Your task to perform on an android device: How do I get to the nearest JCPenney? Image 0: 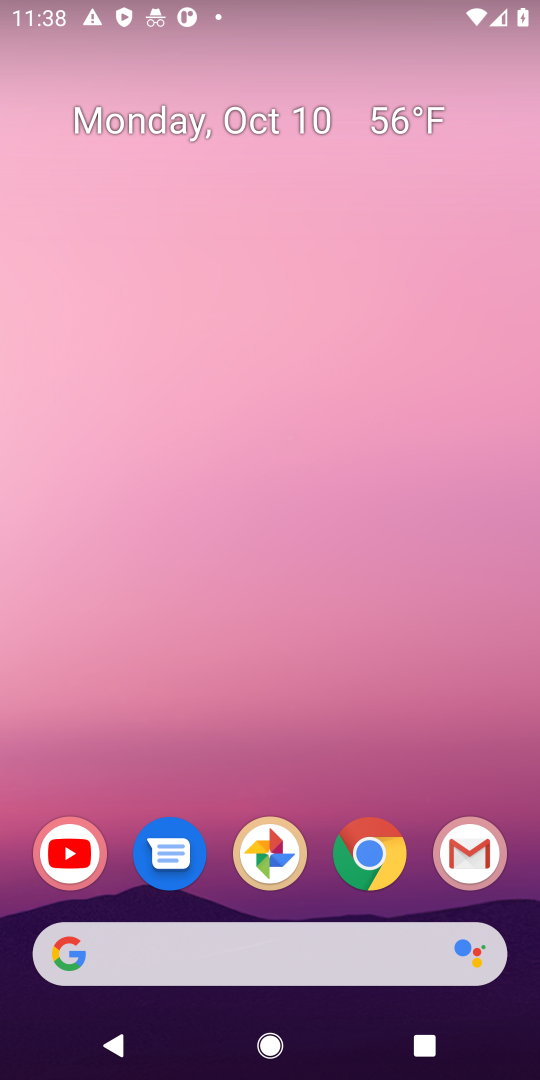
Step 0: drag from (319, 815) to (386, 1)
Your task to perform on an android device: How do I get to the nearest JCPenney? Image 1: 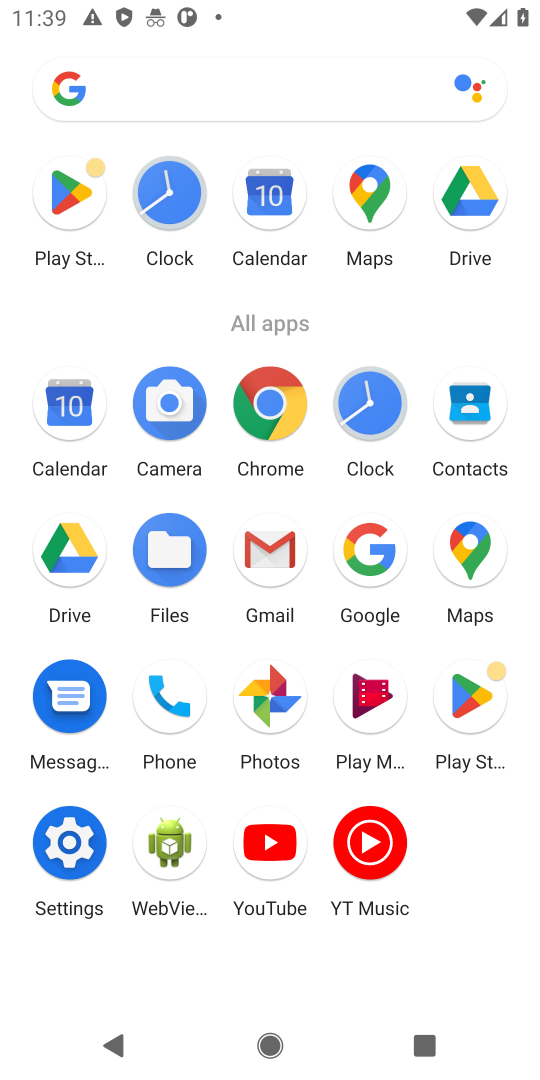
Step 1: click (270, 402)
Your task to perform on an android device: How do I get to the nearest JCPenney? Image 2: 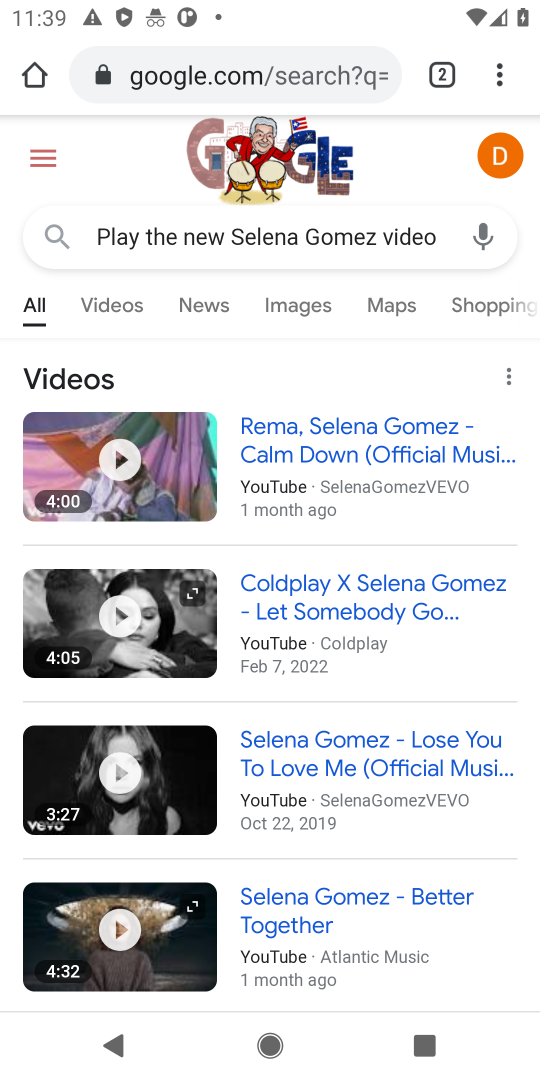
Step 2: click (232, 67)
Your task to perform on an android device: How do I get to the nearest JCPenney? Image 3: 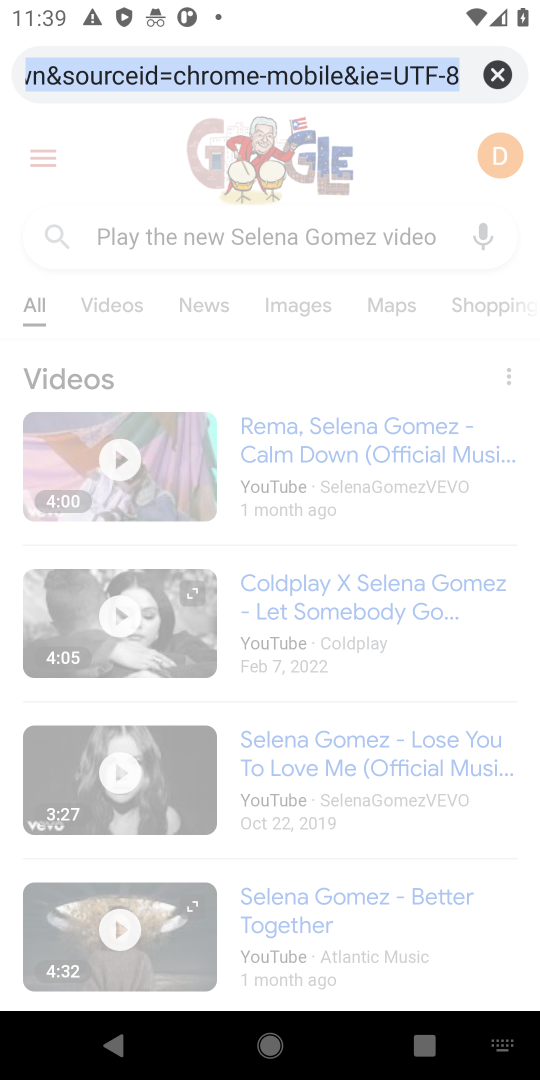
Step 3: click (498, 82)
Your task to perform on an android device: How do I get to the nearest JCPenney? Image 4: 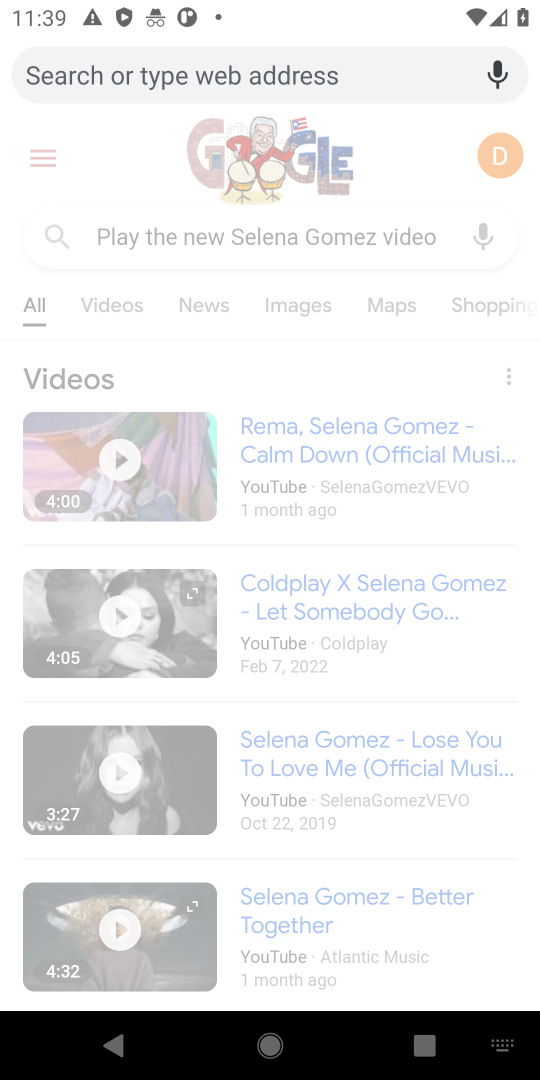
Step 4: type "How do I get to the nearest JCPenney?"
Your task to perform on an android device: How do I get to the nearest JCPenney? Image 5: 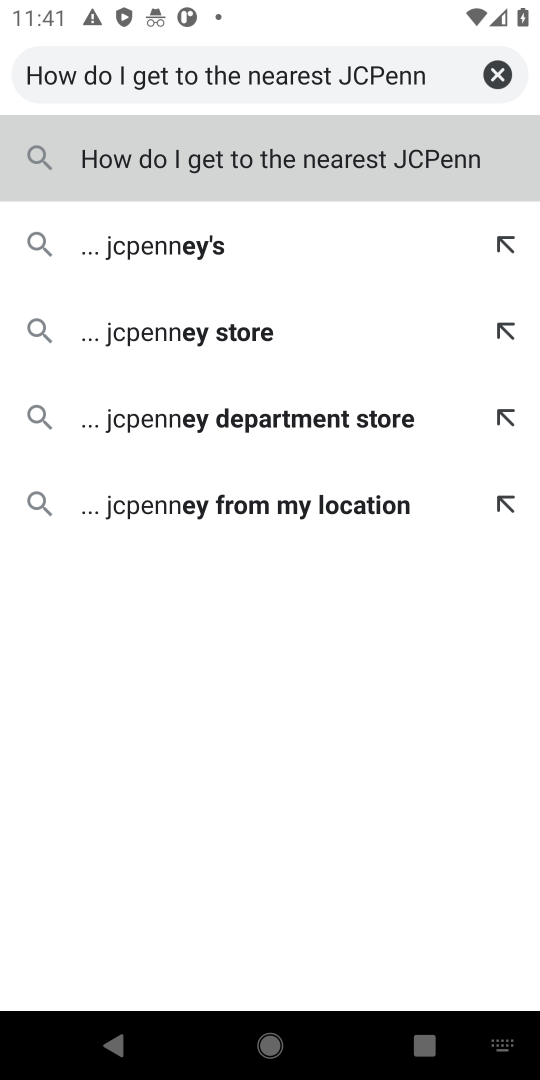
Step 5: click (350, 169)
Your task to perform on an android device: How do I get to the nearest JCPenney? Image 6: 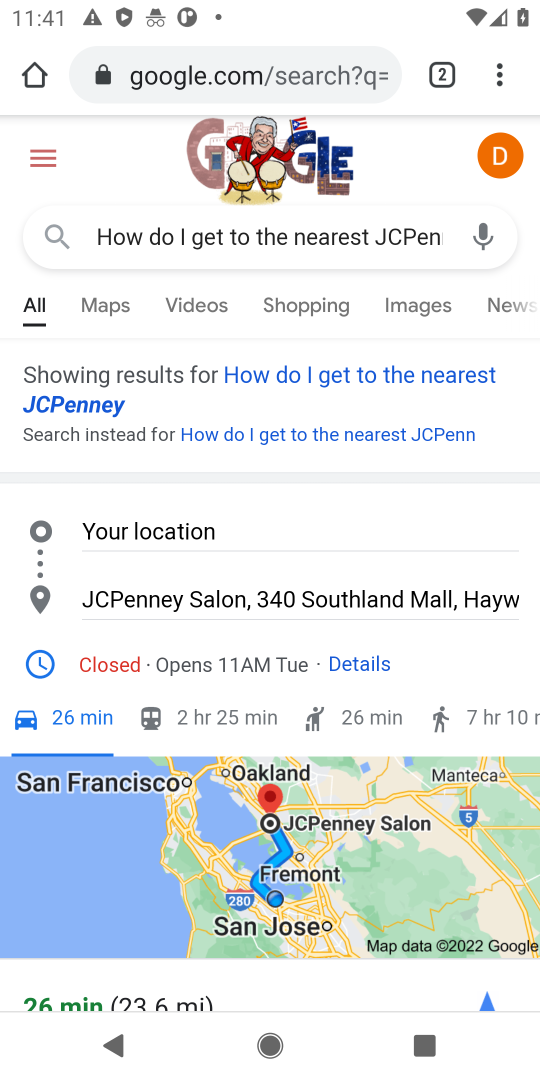
Step 6: task complete